Your task to perform on an android device: Search for a new highlighter Image 0: 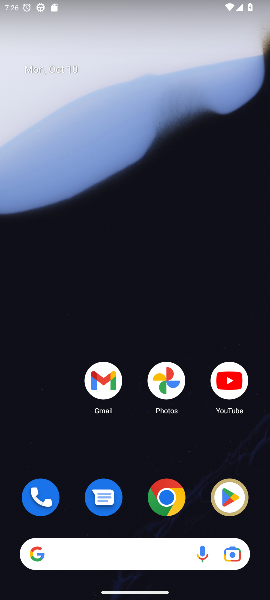
Step 0: drag from (119, 453) to (153, 107)
Your task to perform on an android device: Search for a new highlighter Image 1: 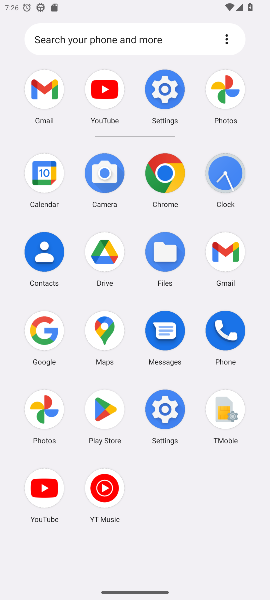
Step 1: click (35, 323)
Your task to perform on an android device: Search for a new highlighter Image 2: 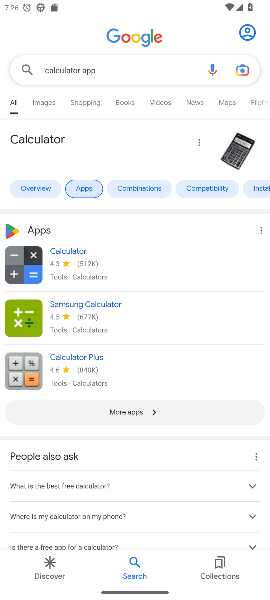
Step 2: click (115, 66)
Your task to perform on an android device: Search for a new highlighter Image 3: 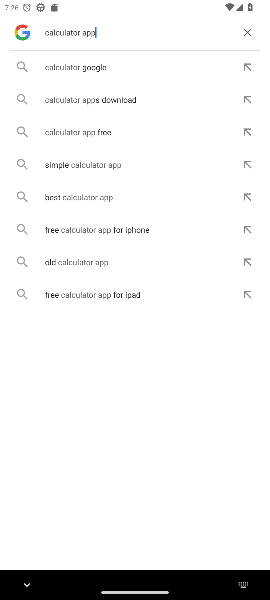
Step 3: click (246, 29)
Your task to perform on an android device: Search for a new highlighter Image 4: 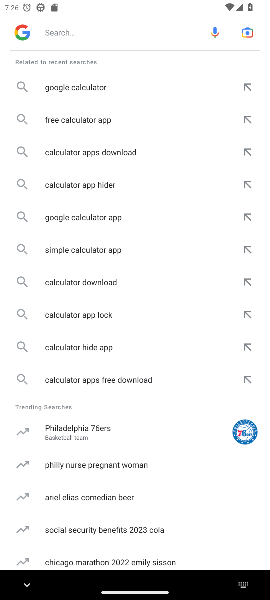
Step 4: click (141, 16)
Your task to perform on an android device: Search for a new highlighter Image 5: 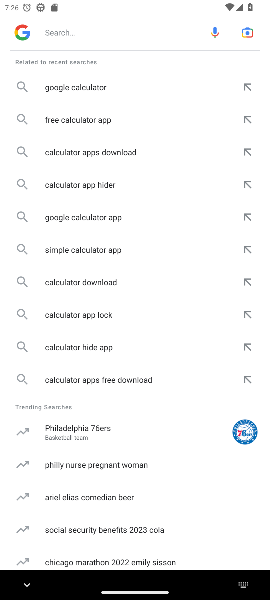
Step 5: type "Search for a new highlighter "
Your task to perform on an android device: Search for a new highlighter Image 6: 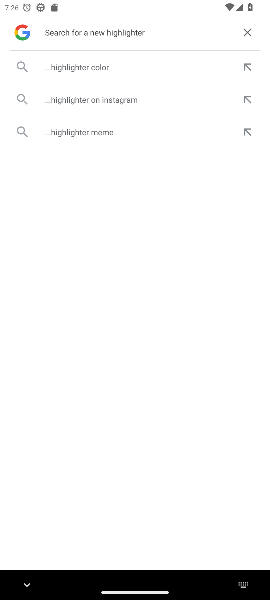
Step 6: click (103, 62)
Your task to perform on an android device: Search for a new highlighter Image 7: 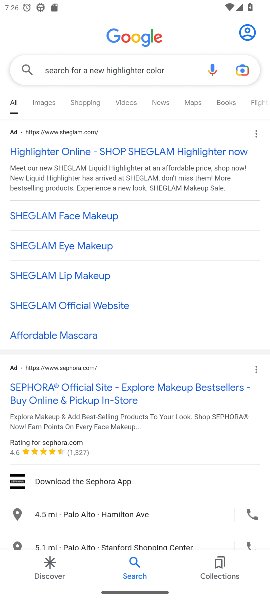
Step 7: click (116, 146)
Your task to perform on an android device: Search for a new highlighter Image 8: 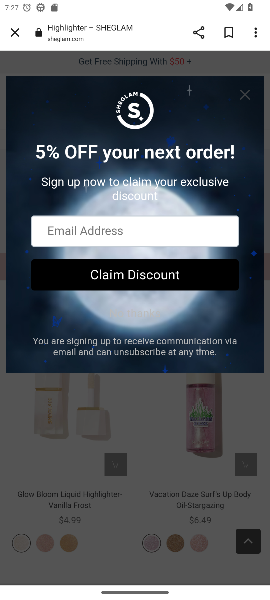
Step 8: click (118, 510)
Your task to perform on an android device: Search for a new highlighter Image 9: 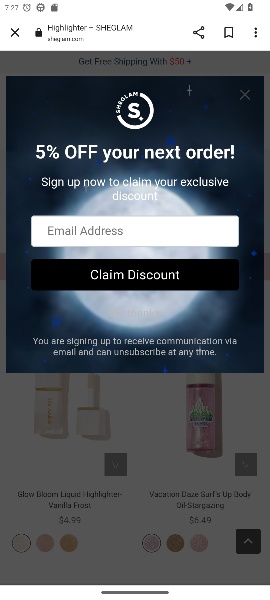
Step 9: drag from (140, 351) to (148, 305)
Your task to perform on an android device: Search for a new highlighter Image 10: 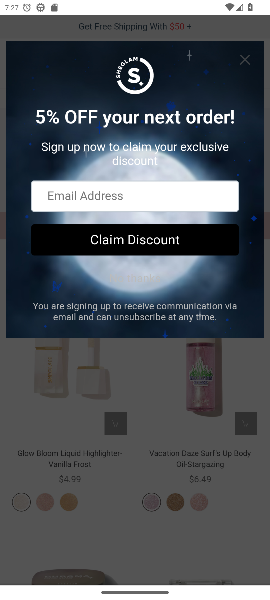
Step 10: click (243, 57)
Your task to perform on an android device: Search for a new highlighter Image 11: 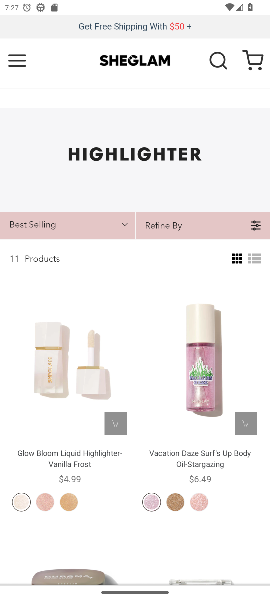
Step 11: task complete